Your task to perform on an android device: Open calendar and show me the second week of next month Image 0: 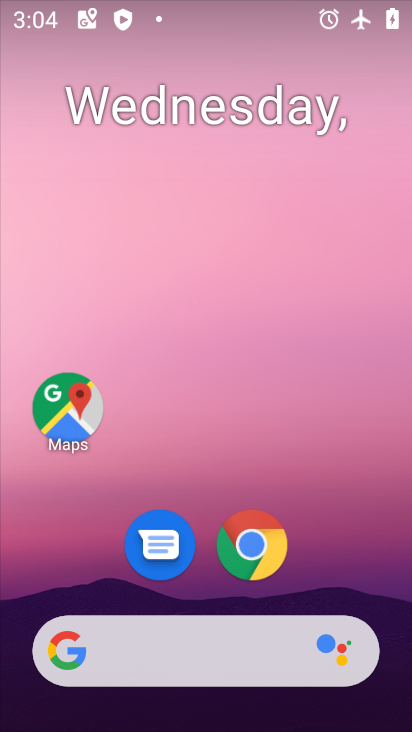
Step 0: drag from (349, 522) to (372, 87)
Your task to perform on an android device: Open calendar and show me the second week of next month Image 1: 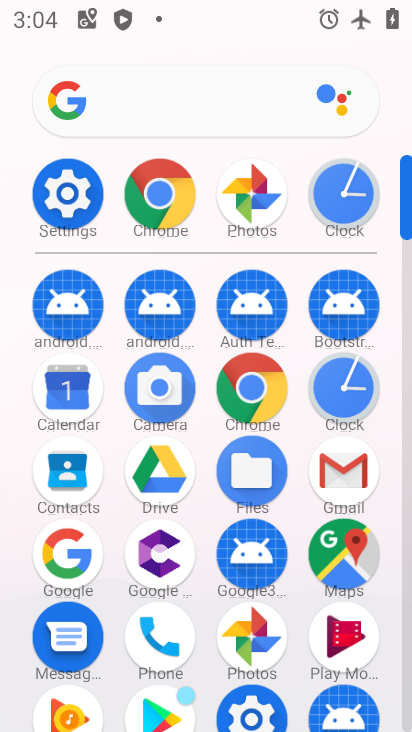
Step 1: click (76, 394)
Your task to perform on an android device: Open calendar and show me the second week of next month Image 2: 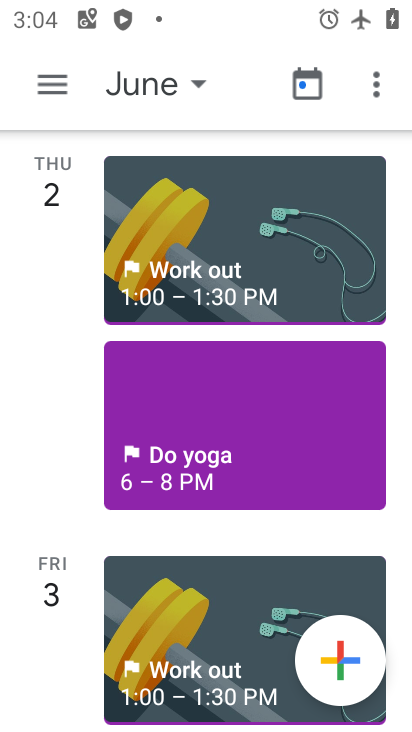
Step 2: click (140, 73)
Your task to perform on an android device: Open calendar and show me the second week of next month Image 3: 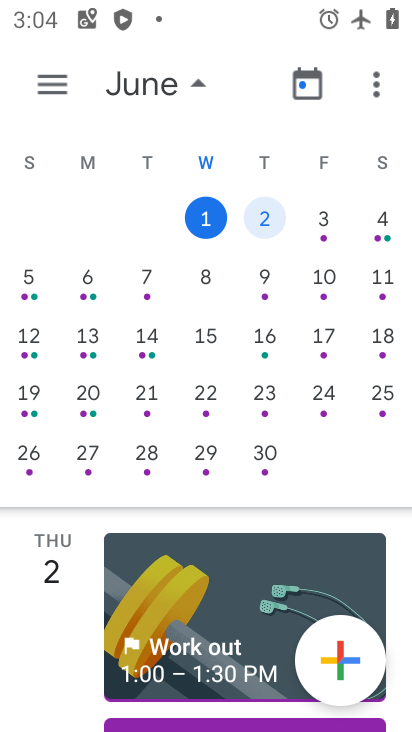
Step 3: drag from (366, 319) to (3, 319)
Your task to perform on an android device: Open calendar and show me the second week of next month Image 4: 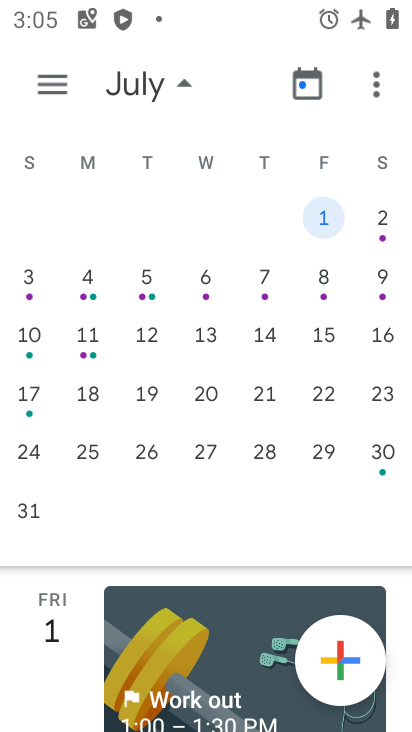
Step 4: click (32, 334)
Your task to perform on an android device: Open calendar and show me the second week of next month Image 5: 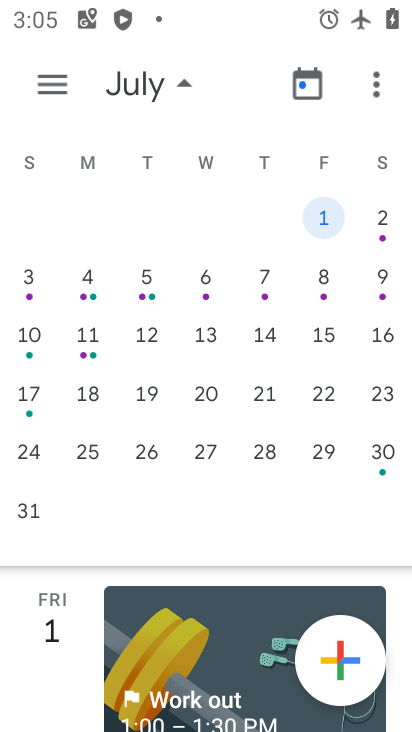
Step 5: click (26, 328)
Your task to perform on an android device: Open calendar and show me the second week of next month Image 6: 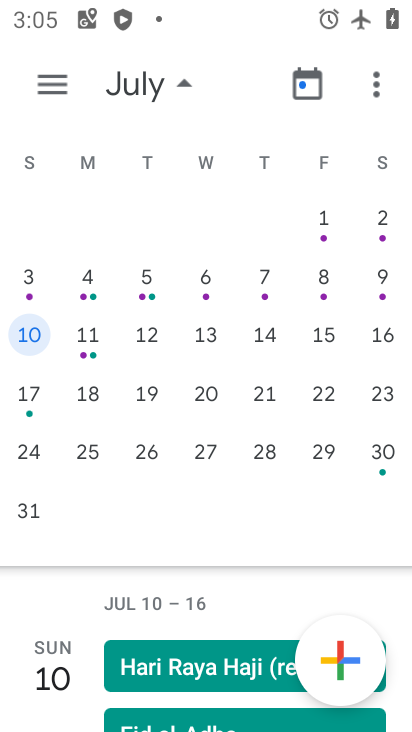
Step 6: click (51, 73)
Your task to perform on an android device: Open calendar and show me the second week of next month Image 7: 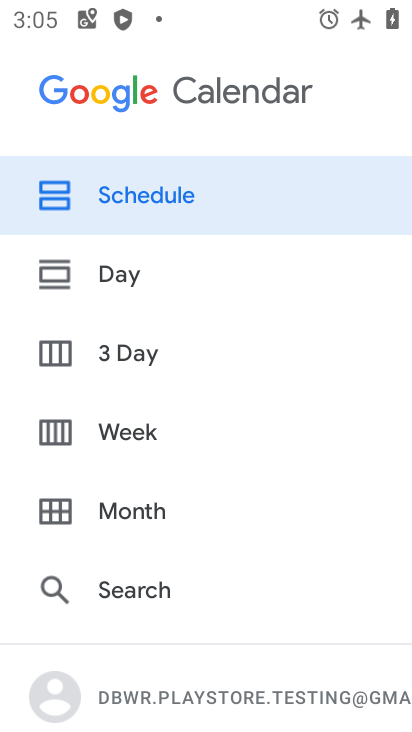
Step 7: click (124, 425)
Your task to perform on an android device: Open calendar and show me the second week of next month Image 8: 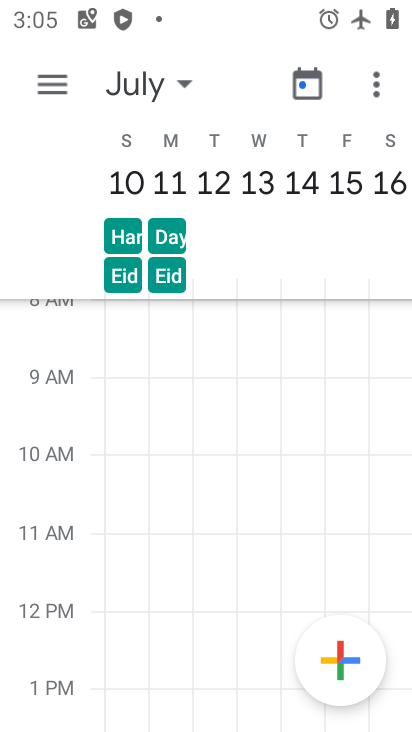
Step 8: task complete